Your task to perform on an android device: Go to battery settings Image 0: 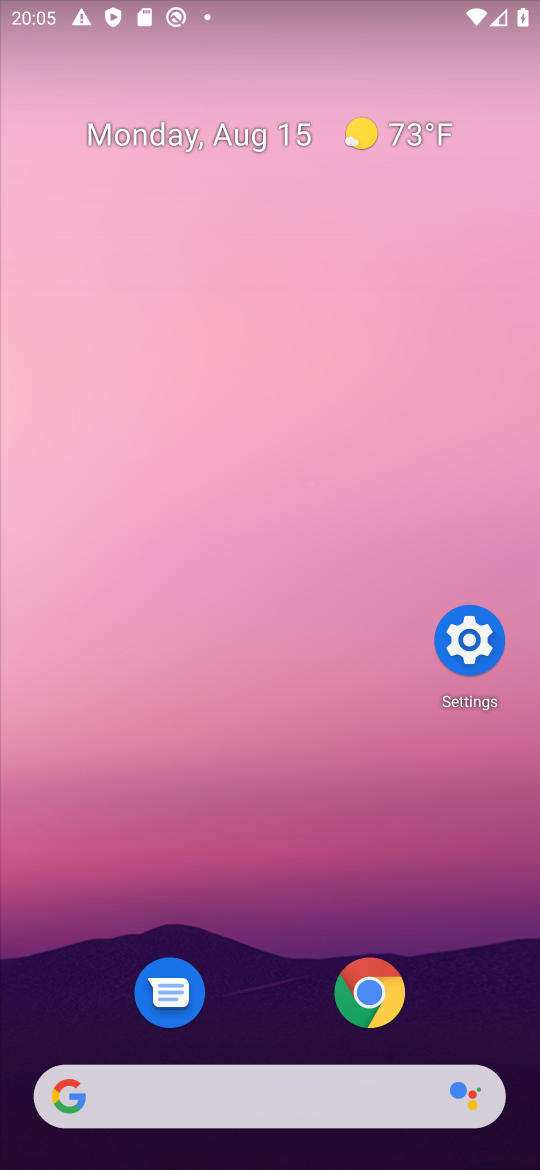
Step 0: click (471, 636)
Your task to perform on an android device: Go to battery settings Image 1: 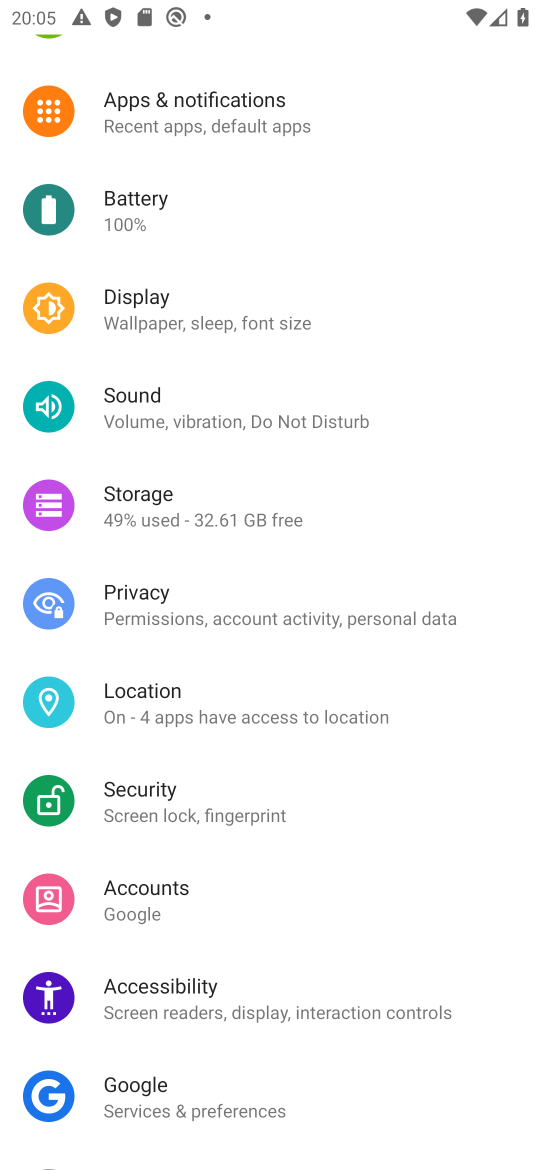
Step 1: click (169, 207)
Your task to perform on an android device: Go to battery settings Image 2: 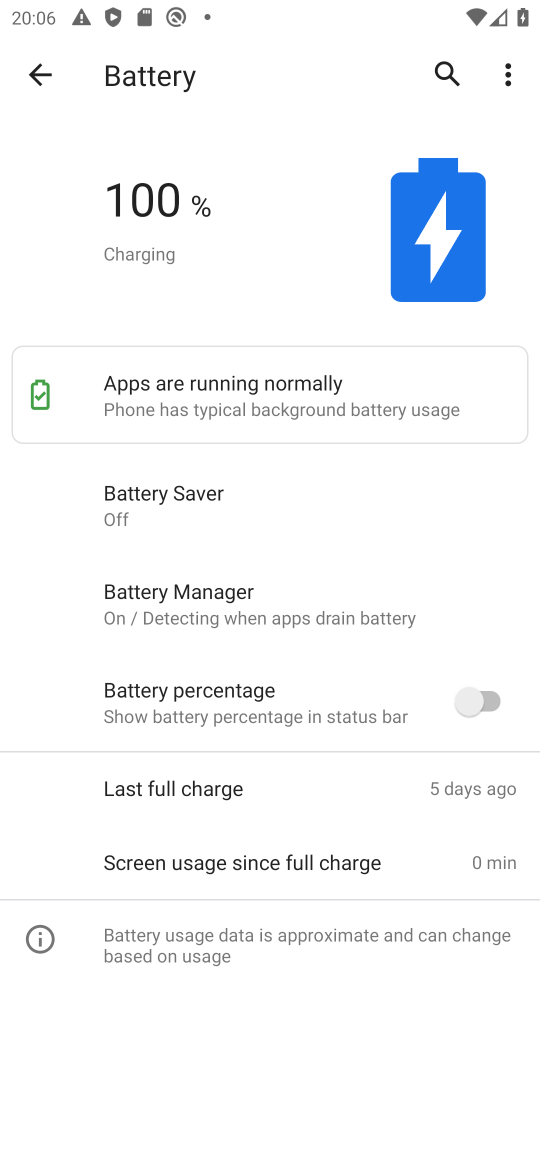
Step 2: task complete